Your task to perform on an android device: check battery use Image 0: 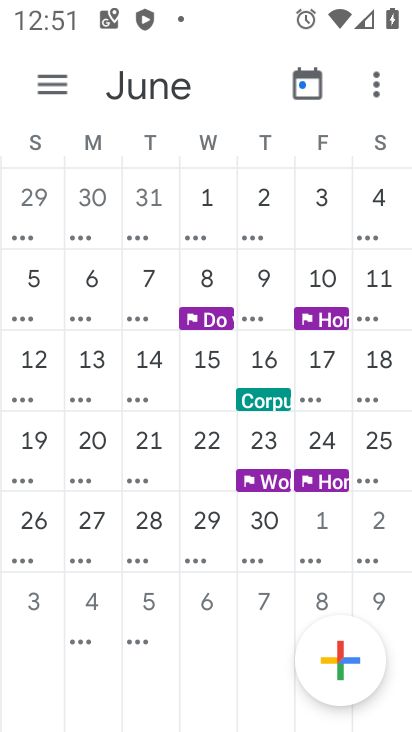
Step 0: press home button
Your task to perform on an android device: check battery use Image 1: 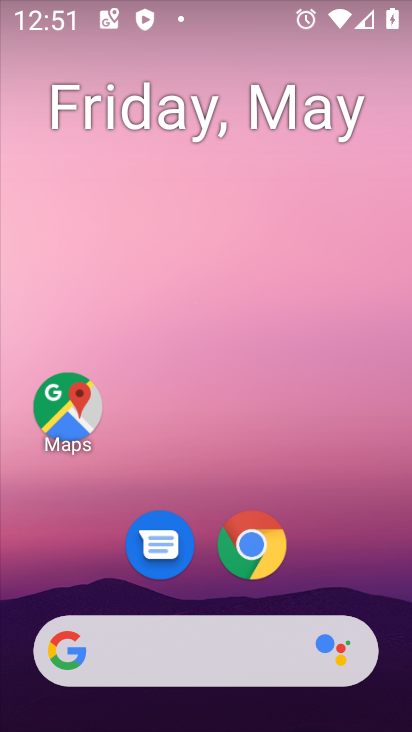
Step 1: drag from (320, 584) to (309, 268)
Your task to perform on an android device: check battery use Image 2: 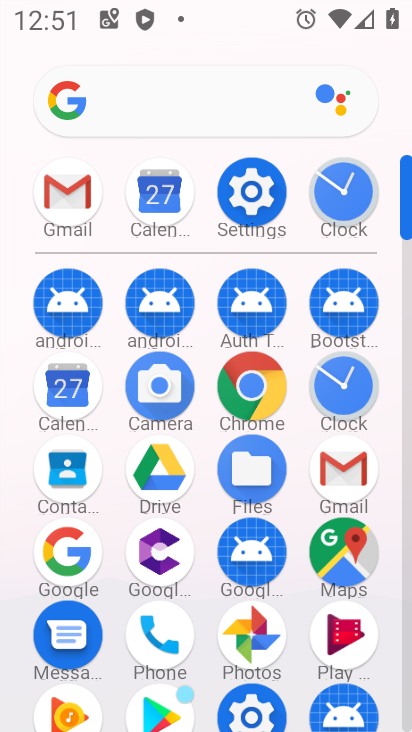
Step 2: click (247, 182)
Your task to perform on an android device: check battery use Image 3: 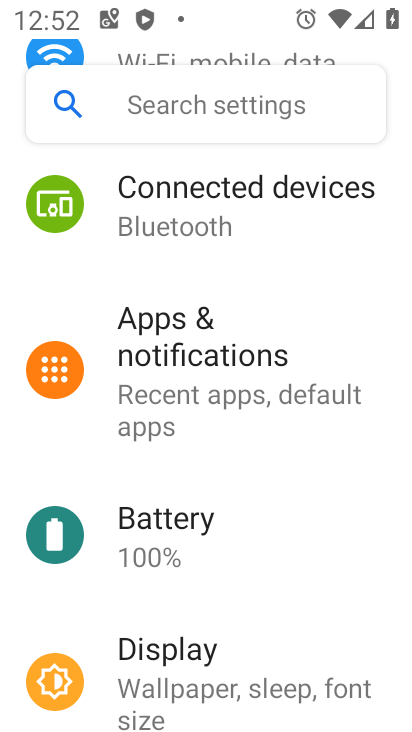
Step 3: drag from (260, 581) to (273, 492)
Your task to perform on an android device: check battery use Image 4: 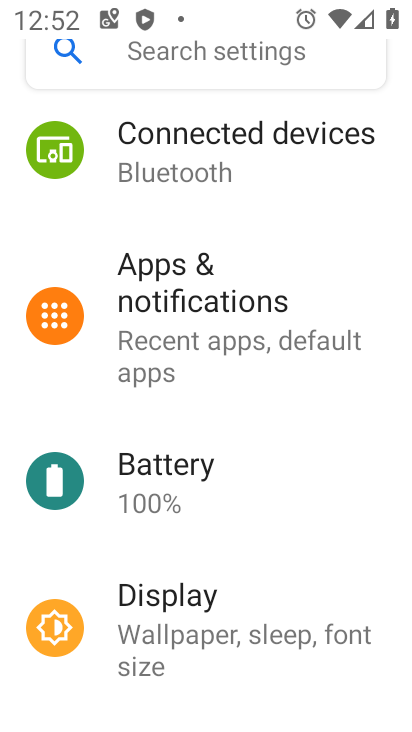
Step 4: click (193, 454)
Your task to perform on an android device: check battery use Image 5: 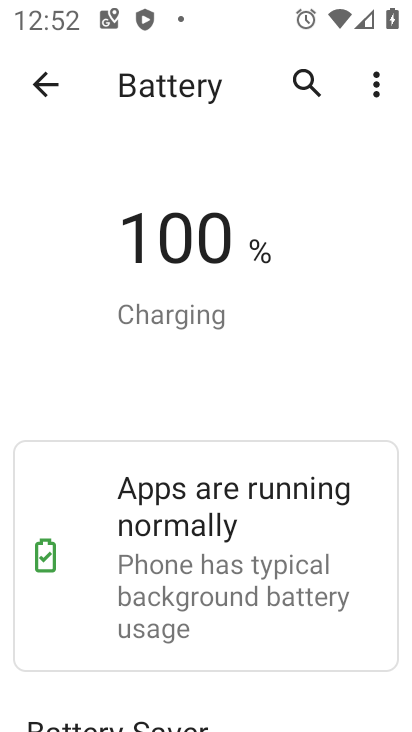
Step 5: task complete